Your task to perform on an android device: Turn on the flashlight Image 0: 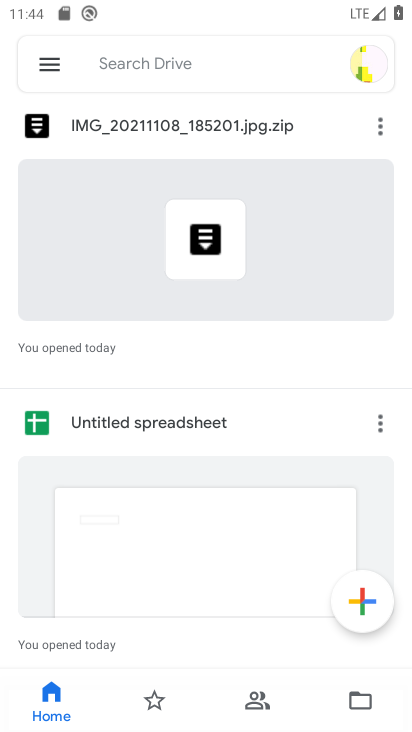
Step 0: press home button
Your task to perform on an android device: Turn on the flashlight Image 1: 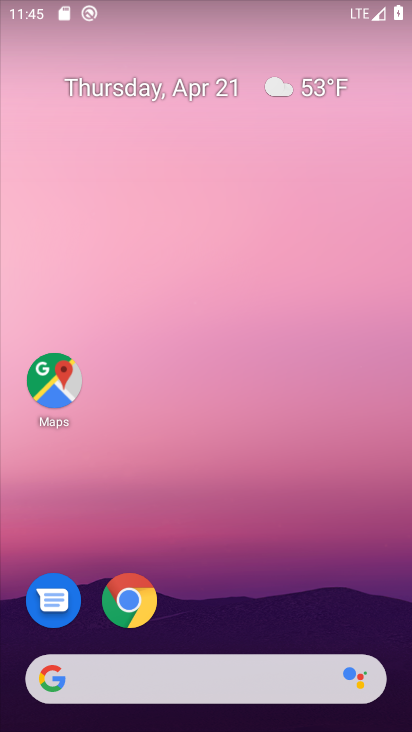
Step 1: task complete